Your task to perform on an android device: turn on notifications settings in the gmail app Image 0: 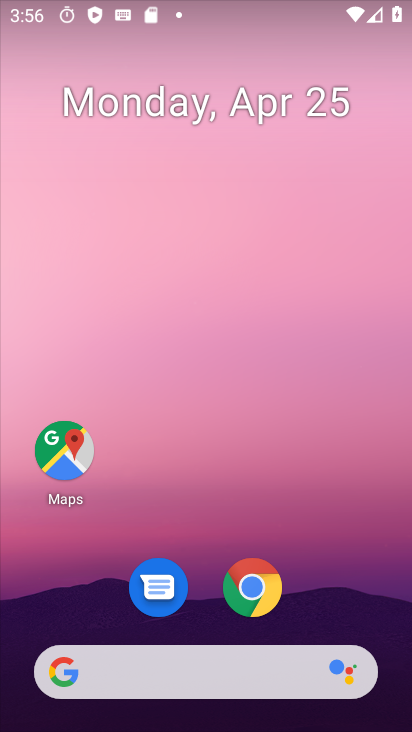
Step 0: drag from (329, 588) to (292, 130)
Your task to perform on an android device: turn on notifications settings in the gmail app Image 1: 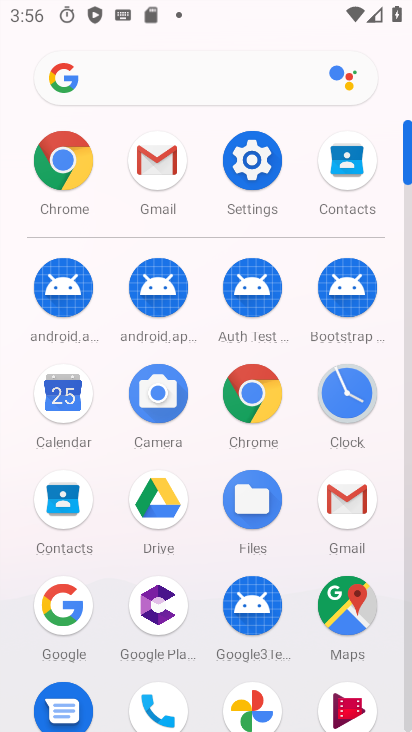
Step 1: click (343, 504)
Your task to perform on an android device: turn on notifications settings in the gmail app Image 2: 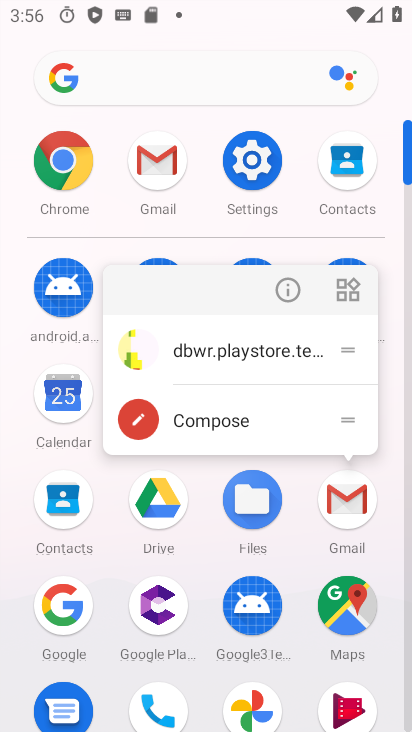
Step 2: click (341, 503)
Your task to perform on an android device: turn on notifications settings in the gmail app Image 3: 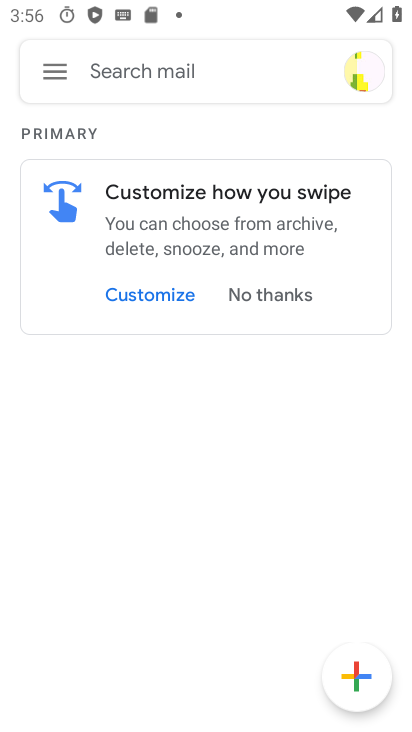
Step 3: click (52, 67)
Your task to perform on an android device: turn on notifications settings in the gmail app Image 4: 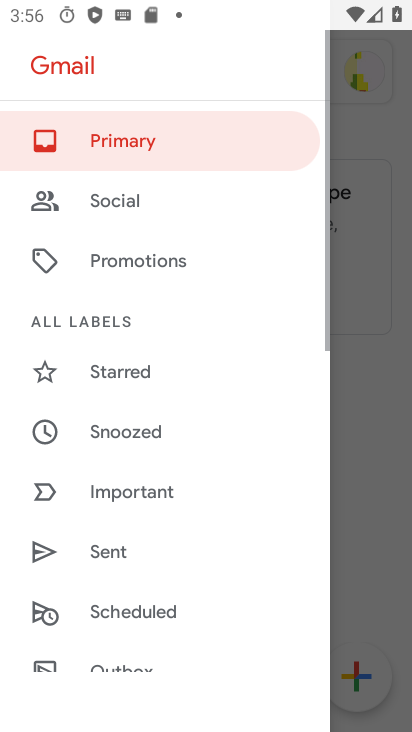
Step 4: drag from (162, 573) to (191, 213)
Your task to perform on an android device: turn on notifications settings in the gmail app Image 5: 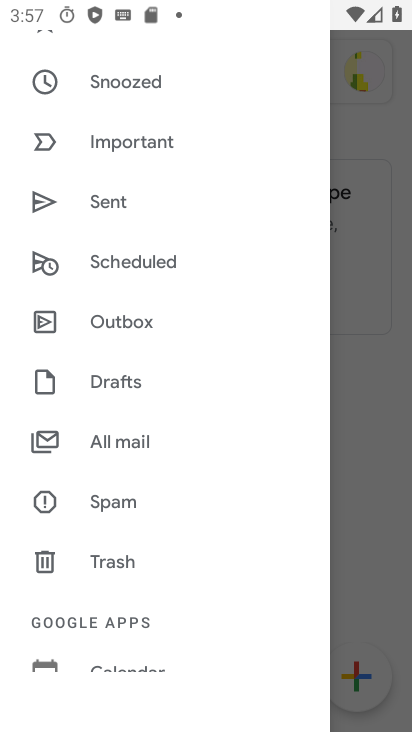
Step 5: drag from (155, 569) to (196, 151)
Your task to perform on an android device: turn on notifications settings in the gmail app Image 6: 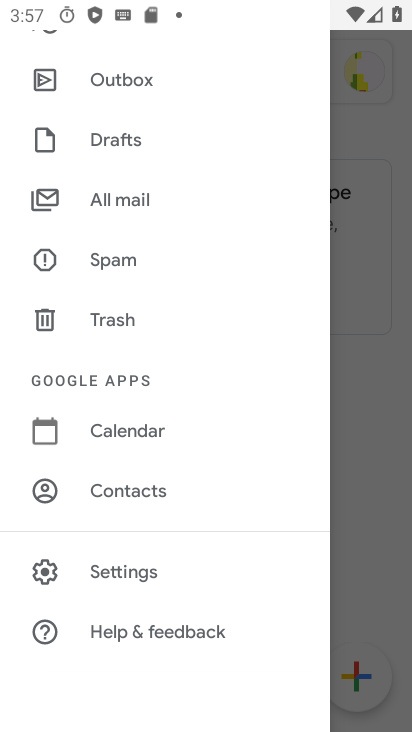
Step 6: click (114, 568)
Your task to perform on an android device: turn on notifications settings in the gmail app Image 7: 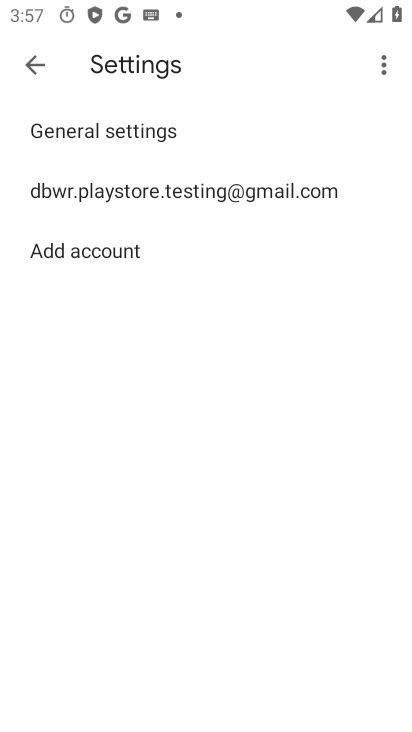
Step 7: click (191, 207)
Your task to perform on an android device: turn on notifications settings in the gmail app Image 8: 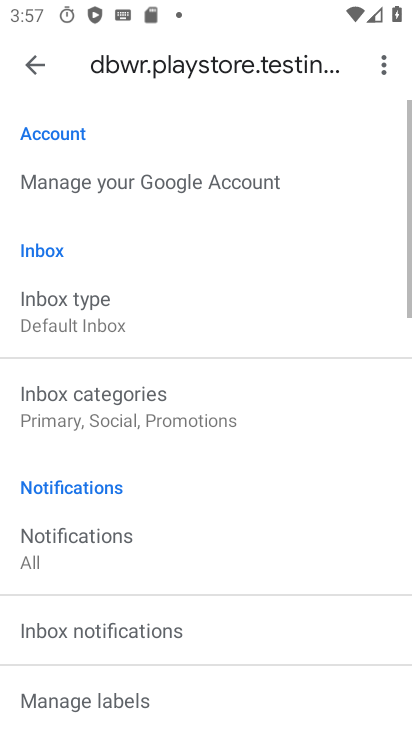
Step 8: drag from (223, 583) to (244, 159)
Your task to perform on an android device: turn on notifications settings in the gmail app Image 9: 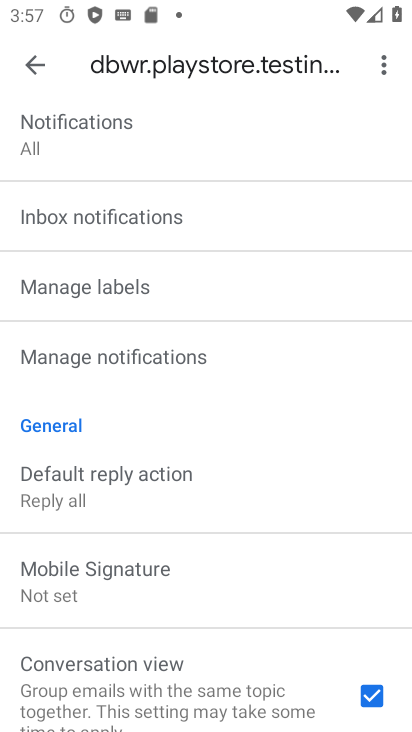
Step 9: drag from (165, 511) to (242, 156)
Your task to perform on an android device: turn on notifications settings in the gmail app Image 10: 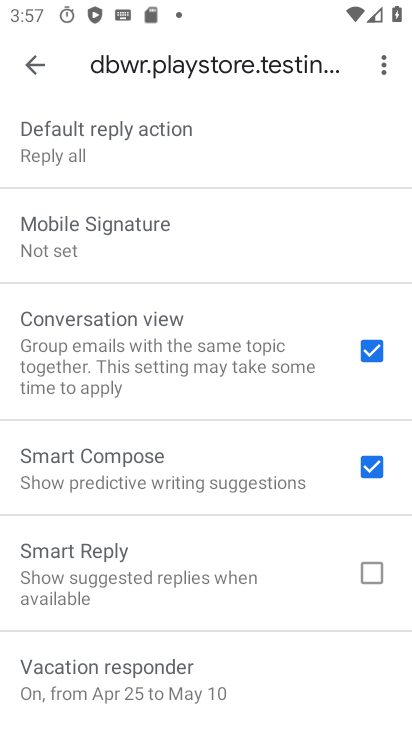
Step 10: drag from (179, 244) to (146, 644)
Your task to perform on an android device: turn on notifications settings in the gmail app Image 11: 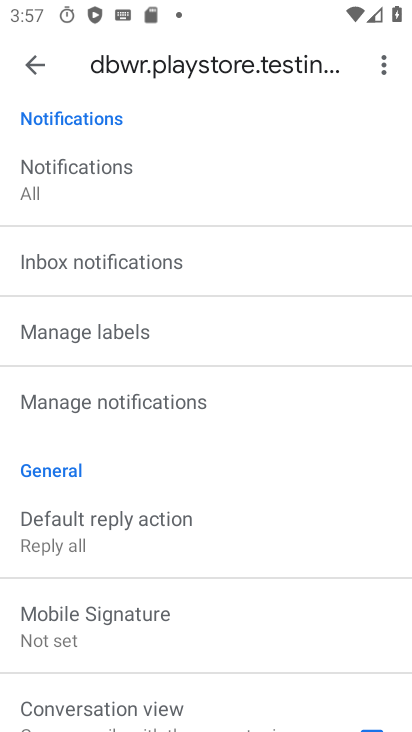
Step 11: click (110, 393)
Your task to perform on an android device: turn on notifications settings in the gmail app Image 12: 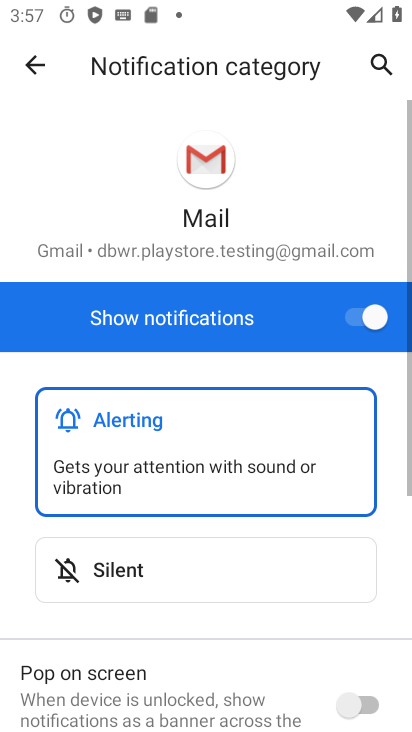
Step 12: task complete